Your task to perform on an android device: turn on translation in the chrome app Image 0: 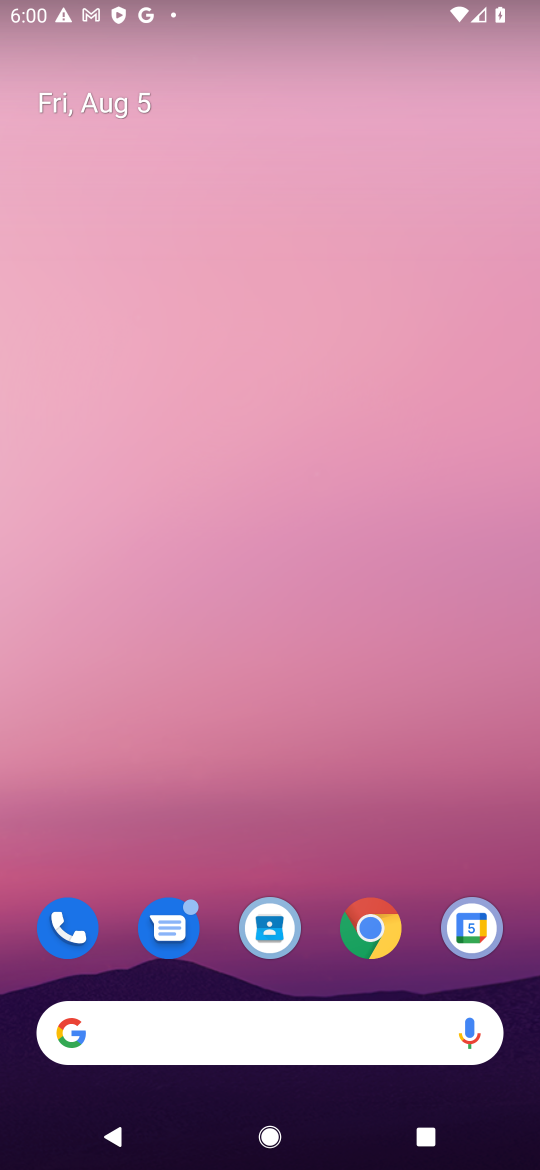
Step 0: click (363, 929)
Your task to perform on an android device: turn on translation in the chrome app Image 1: 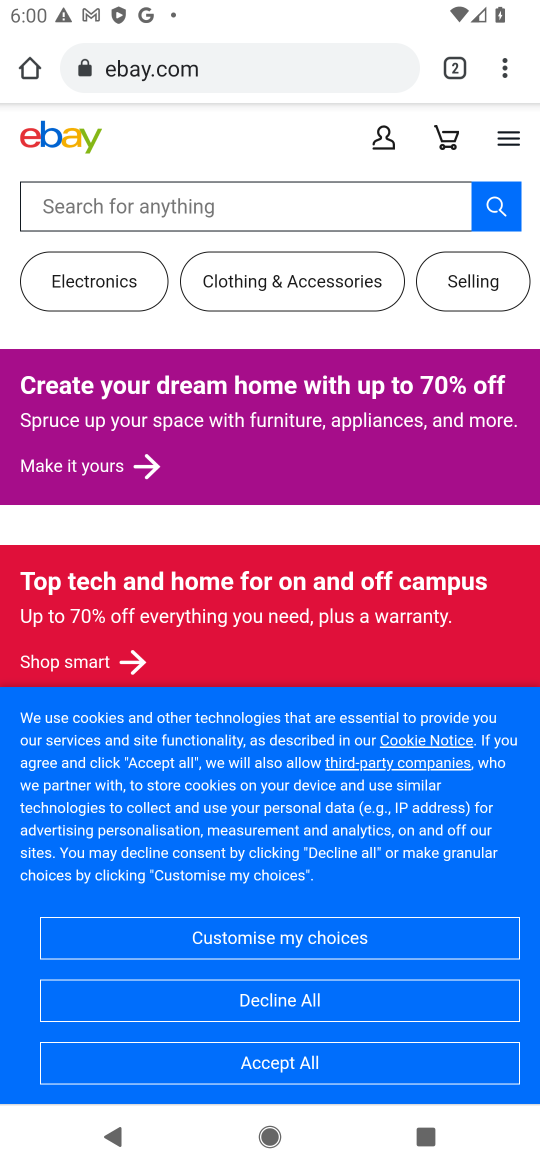
Step 1: click (491, 59)
Your task to perform on an android device: turn on translation in the chrome app Image 2: 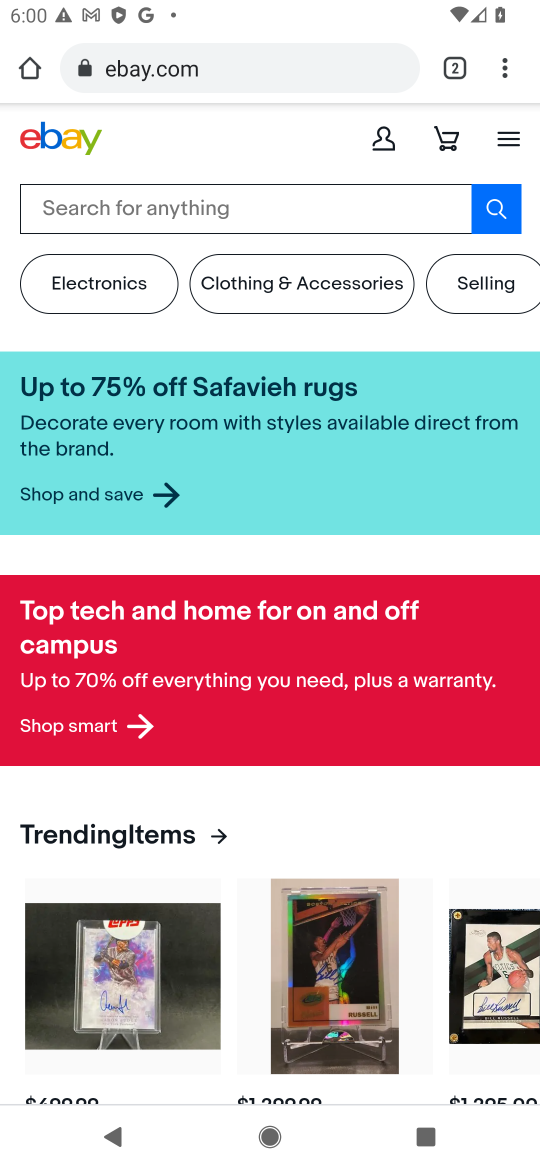
Step 2: drag from (498, 61) to (284, 827)
Your task to perform on an android device: turn on translation in the chrome app Image 3: 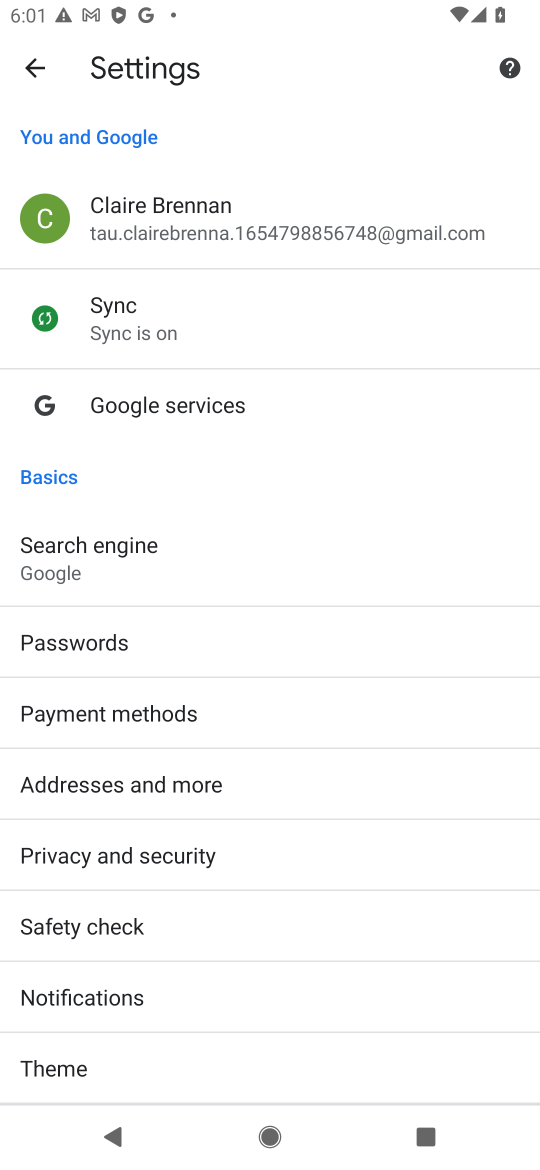
Step 3: drag from (203, 770) to (137, 8)
Your task to perform on an android device: turn on translation in the chrome app Image 4: 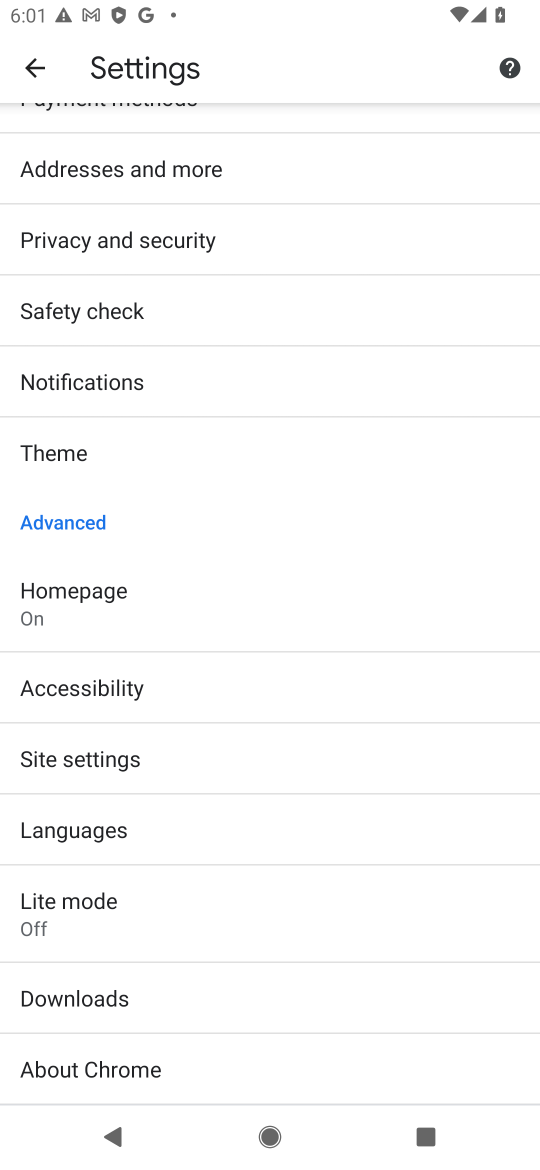
Step 4: click (119, 832)
Your task to perform on an android device: turn on translation in the chrome app Image 5: 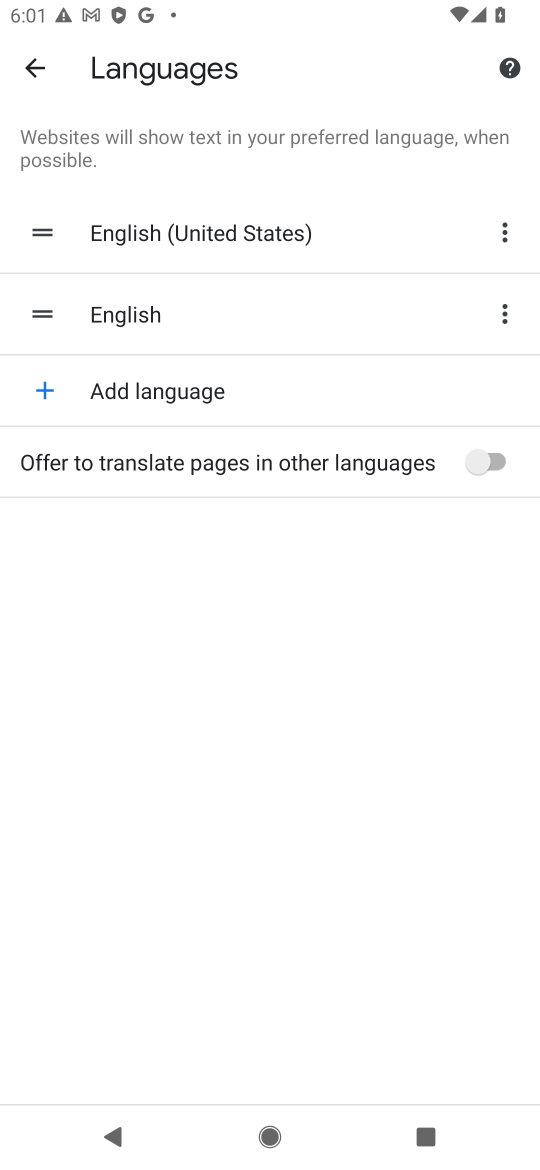
Step 5: click (487, 452)
Your task to perform on an android device: turn on translation in the chrome app Image 6: 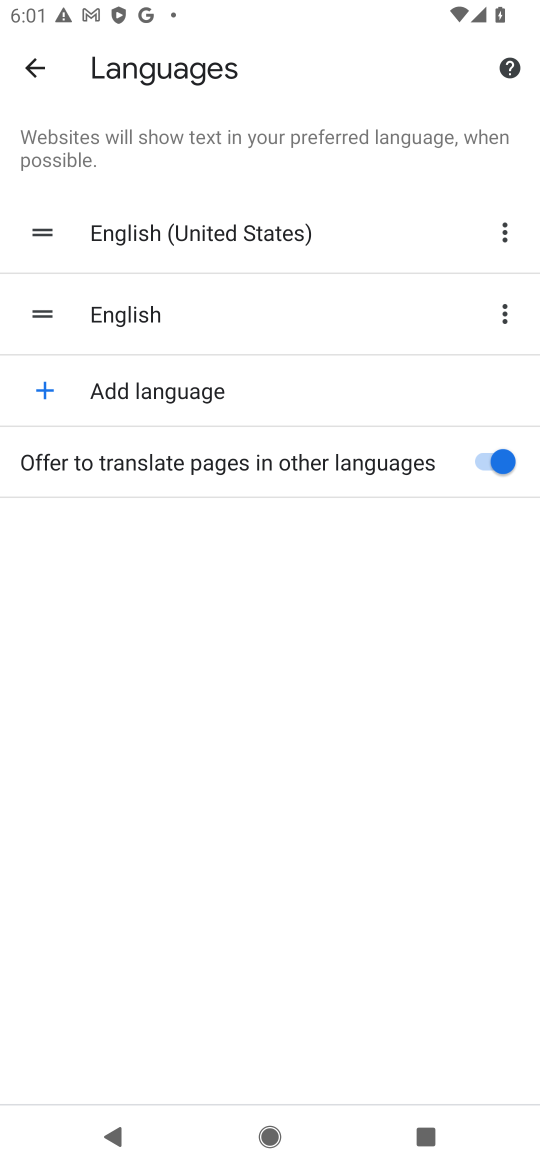
Step 6: task complete